Your task to perform on an android device: Search for apple airpods on target, select the first entry, and add it to the cart. Image 0: 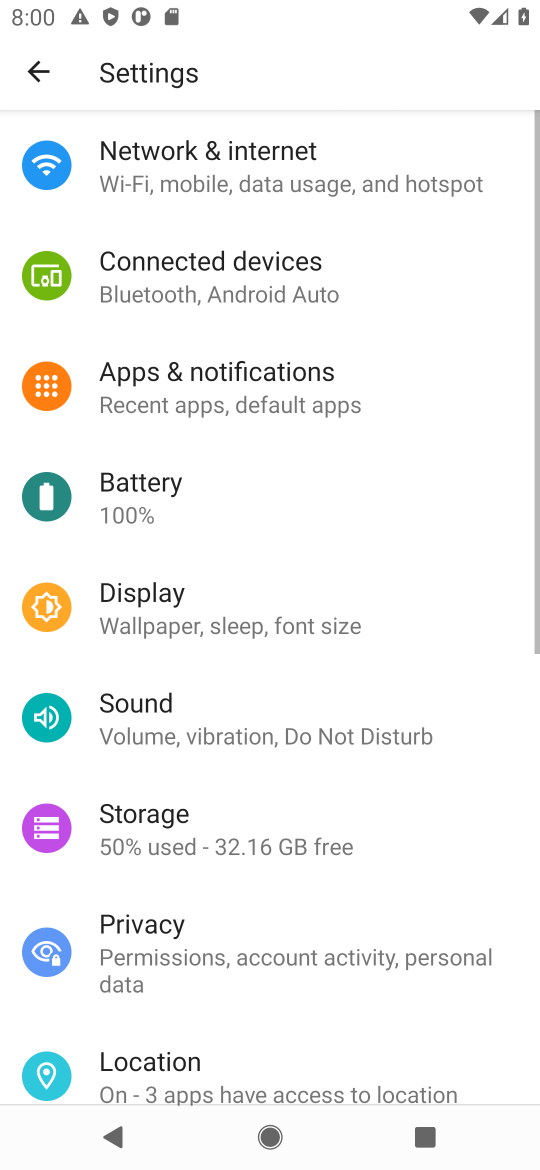
Step 0: press home button
Your task to perform on an android device: Search for apple airpods on target, select the first entry, and add it to the cart. Image 1: 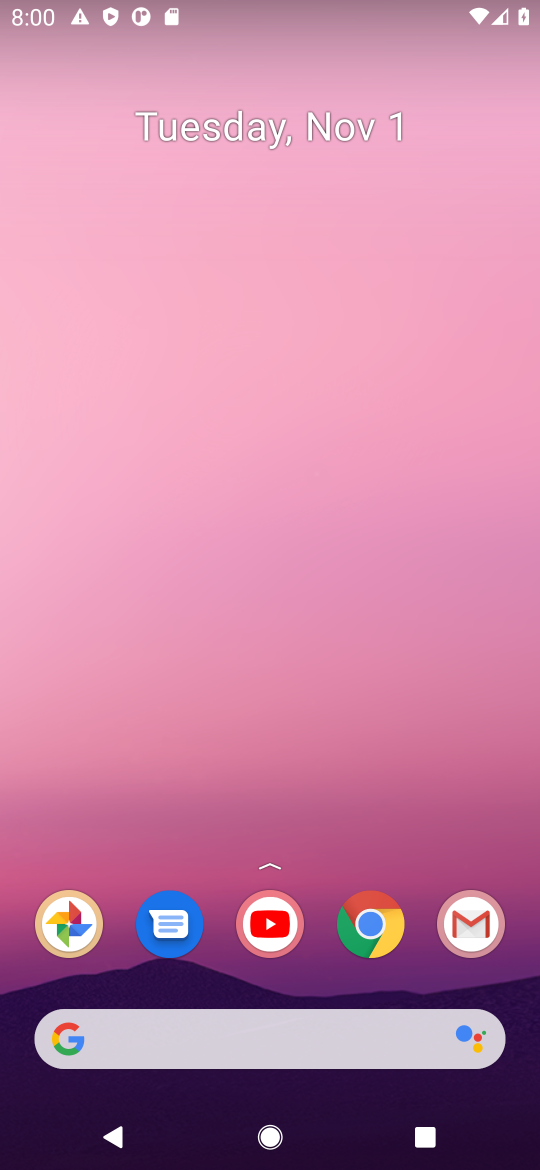
Step 1: click (101, 1031)
Your task to perform on an android device: Search for apple airpods on target, select the first entry, and add it to the cart. Image 2: 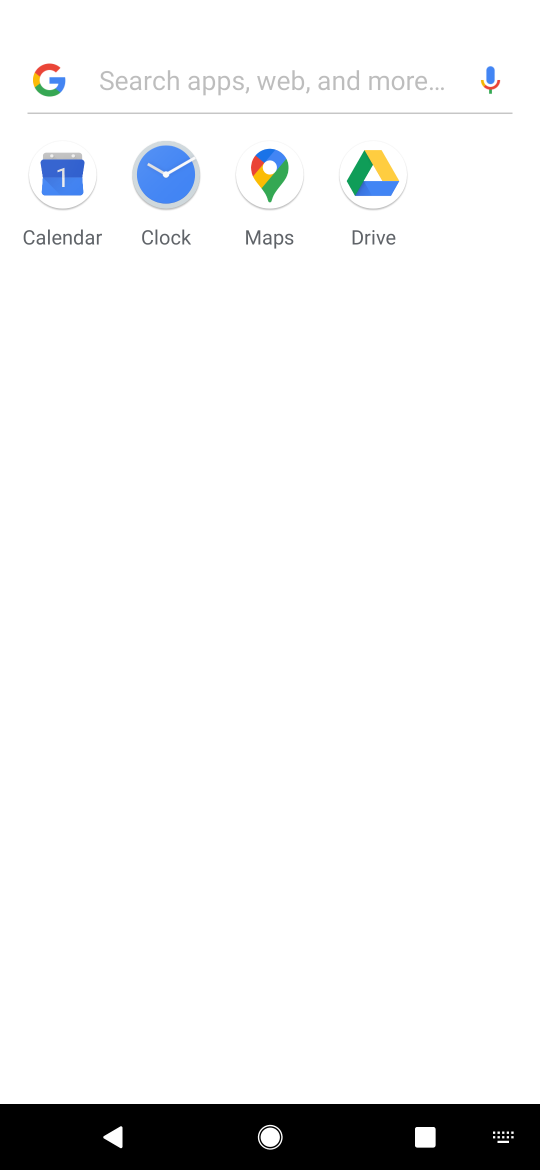
Step 2: type "target,"
Your task to perform on an android device: Search for apple airpods on target, select the first entry, and add it to the cart. Image 3: 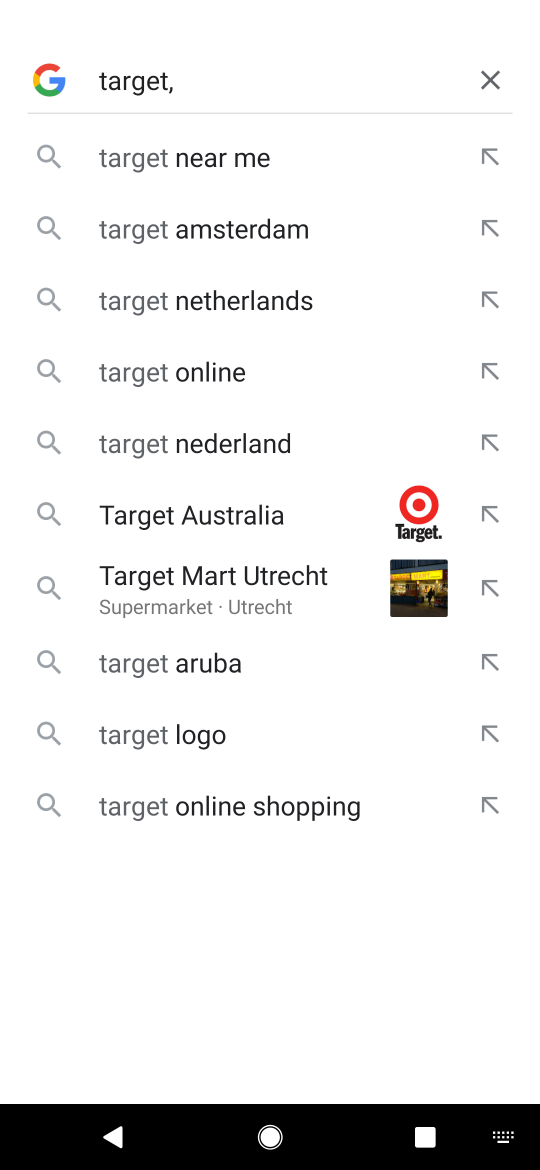
Step 3: press enter
Your task to perform on an android device: Search for apple airpods on target, select the first entry, and add it to the cart. Image 4: 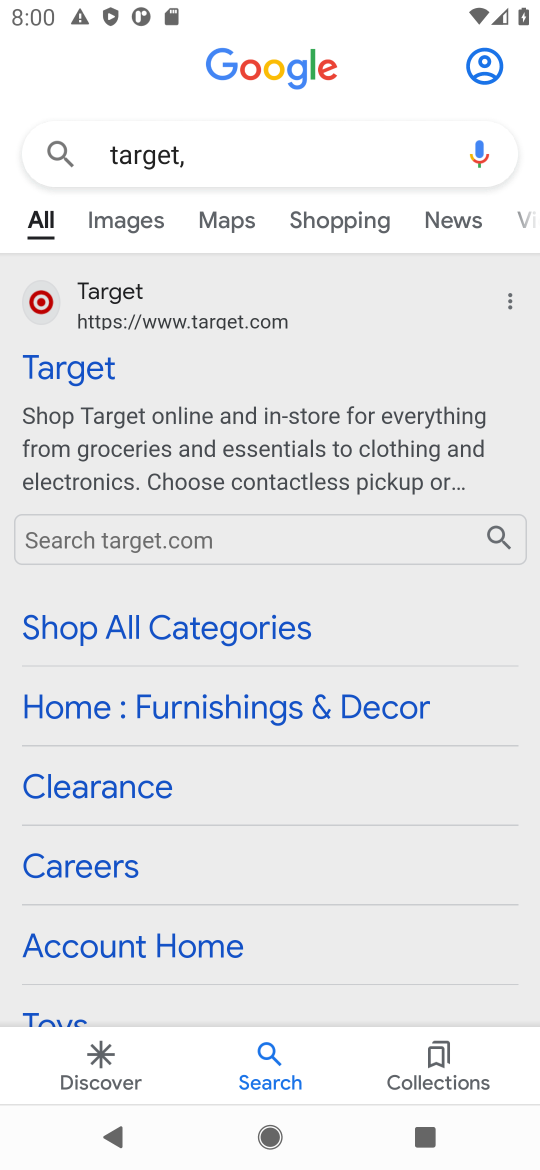
Step 4: click (87, 368)
Your task to perform on an android device: Search for apple airpods on target, select the first entry, and add it to the cart. Image 5: 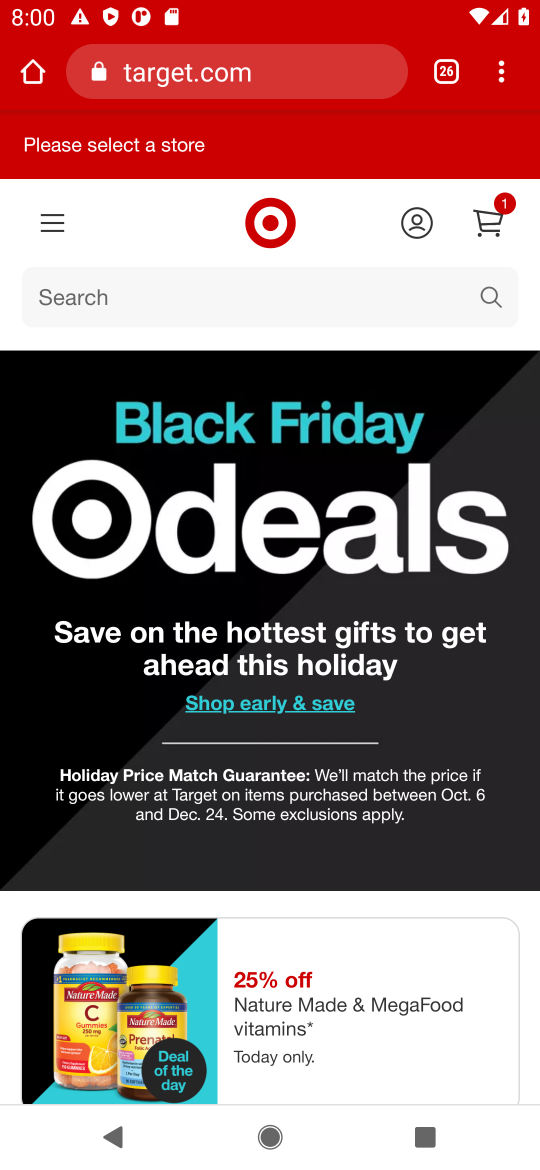
Step 5: click (104, 293)
Your task to perform on an android device: Search for apple airpods on target, select the first entry, and add it to the cart. Image 6: 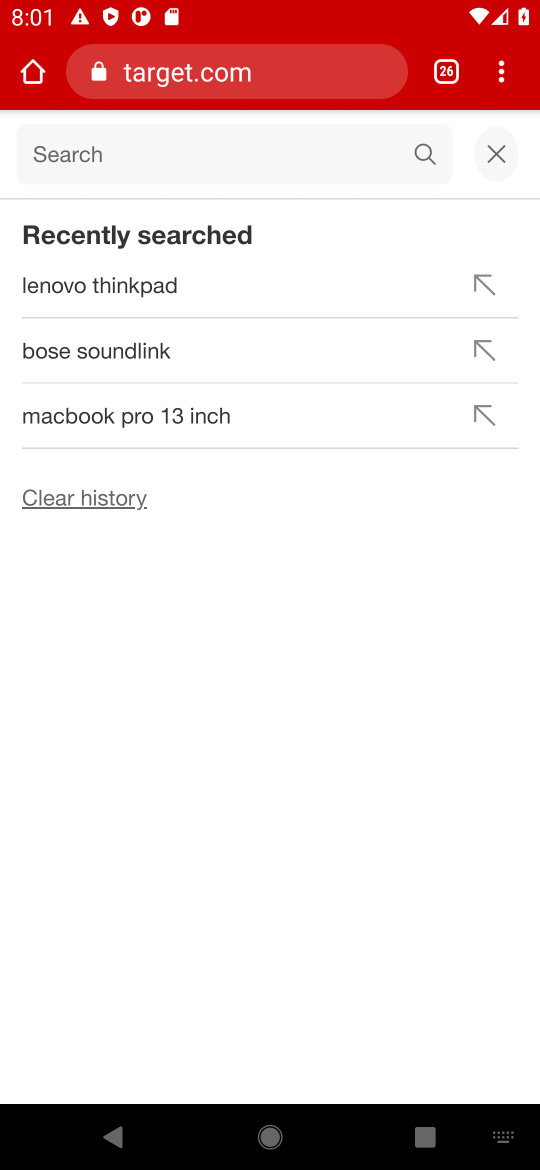
Step 6: type "apple airpods"
Your task to perform on an android device: Search for apple airpods on target, select the first entry, and add it to the cart. Image 7: 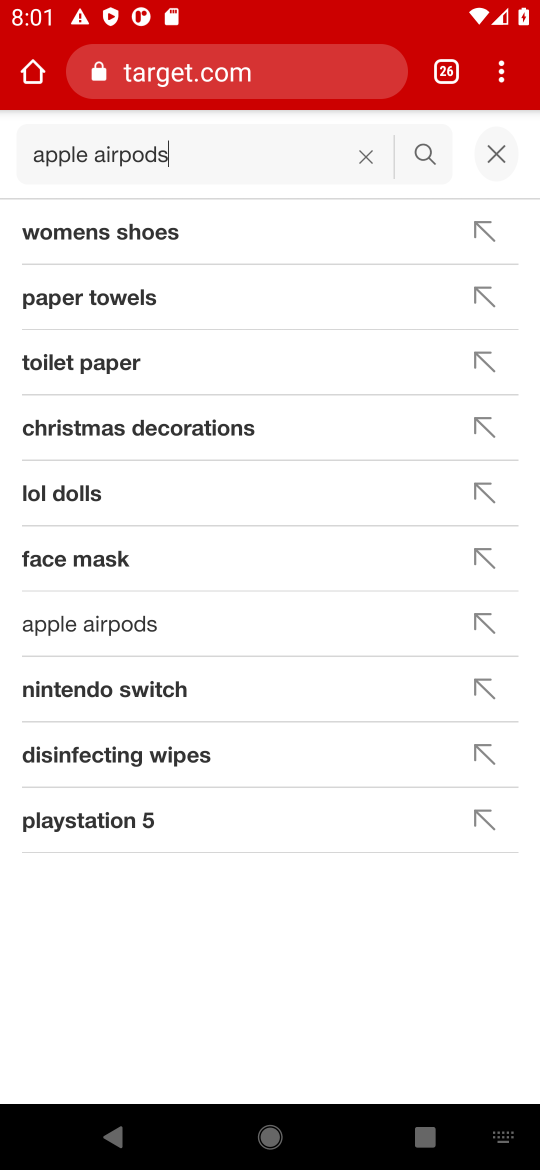
Step 7: press enter
Your task to perform on an android device: Search for apple airpods on target, select the first entry, and add it to the cart. Image 8: 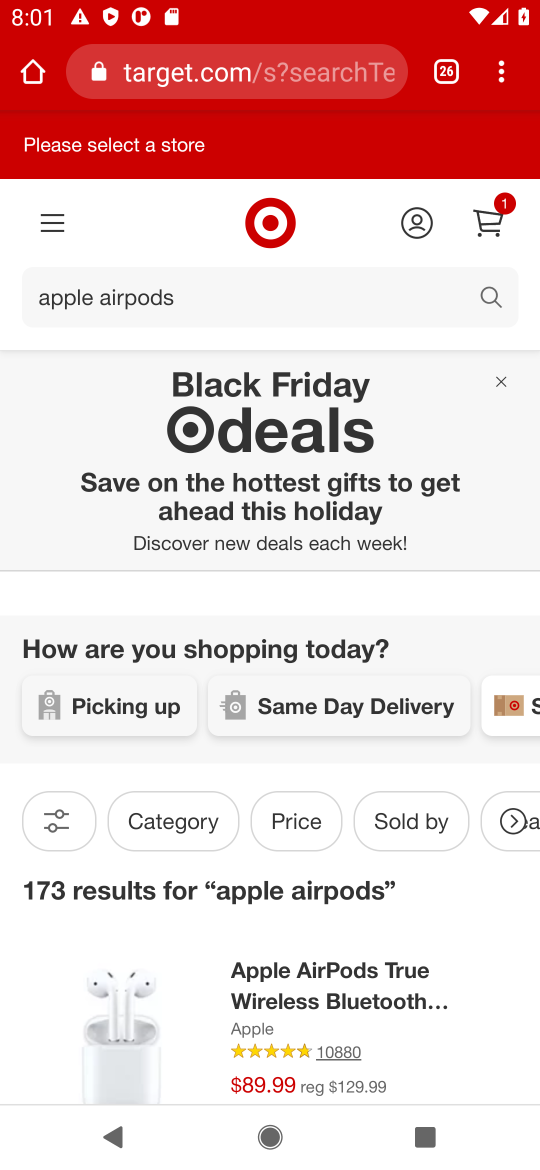
Step 8: drag from (431, 914) to (417, 578)
Your task to perform on an android device: Search for apple airpods on target, select the first entry, and add it to the cart. Image 9: 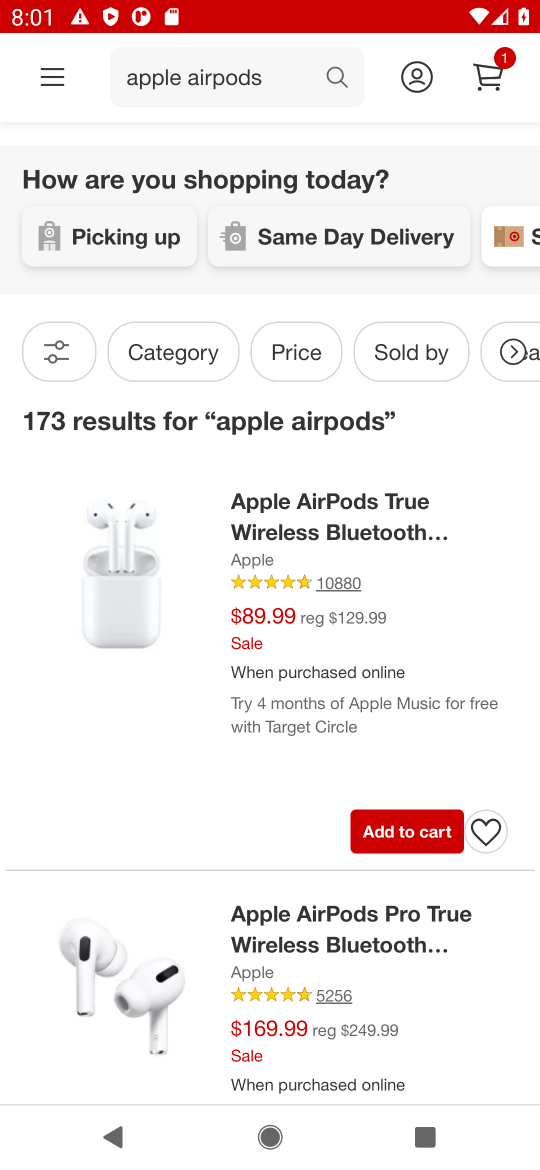
Step 9: click (411, 828)
Your task to perform on an android device: Search for apple airpods on target, select the first entry, and add it to the cart. Image 10: 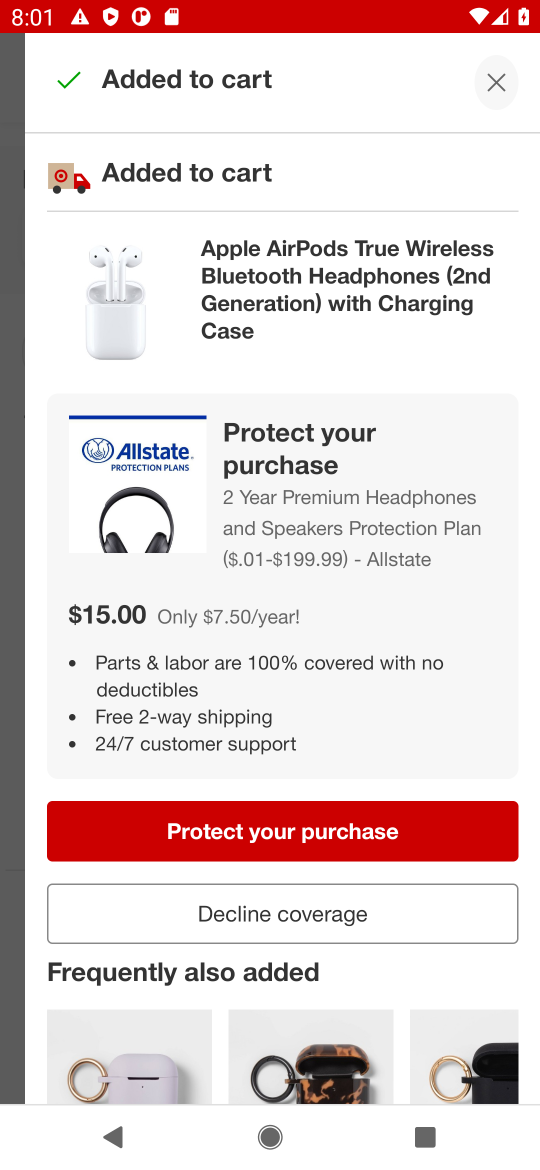
Step 10: task complete